Your task to perform on an android device: show emergency info Image 0: 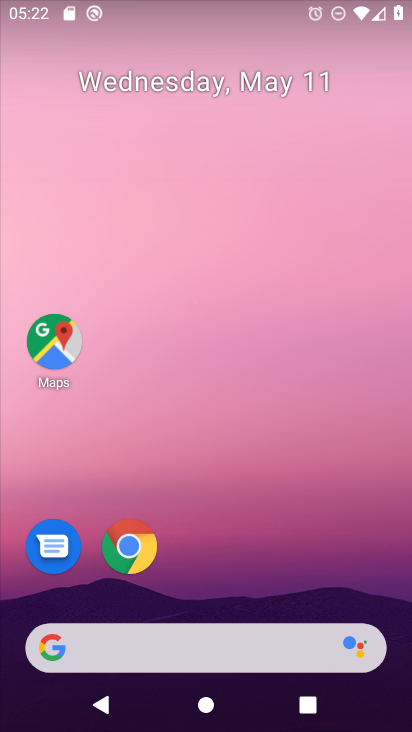
Step 0: drag from (338, 627) to (373, 36)
Your task to perform on an android device: show emergency info Image 1: 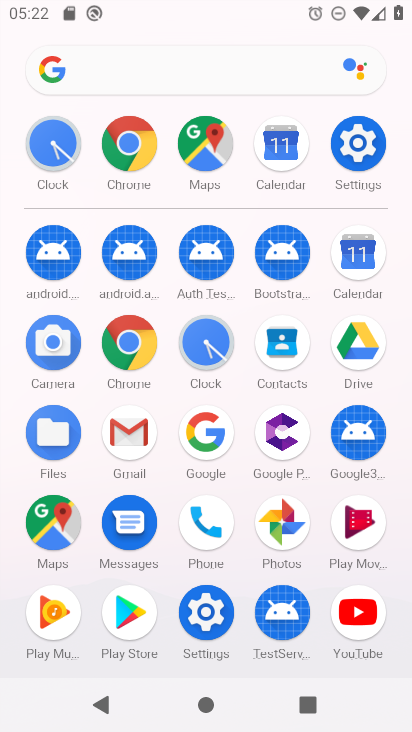
Step 1: click (218, 622)
Your task to perform on an android device: show emergency info Image 2: 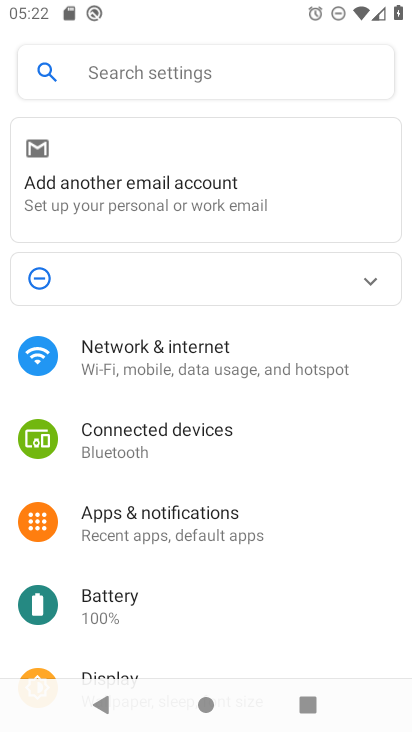
Step 2: drag from (237, 619) to (238, 84)
Your task to perform on an android device: show emergency info Image 3: 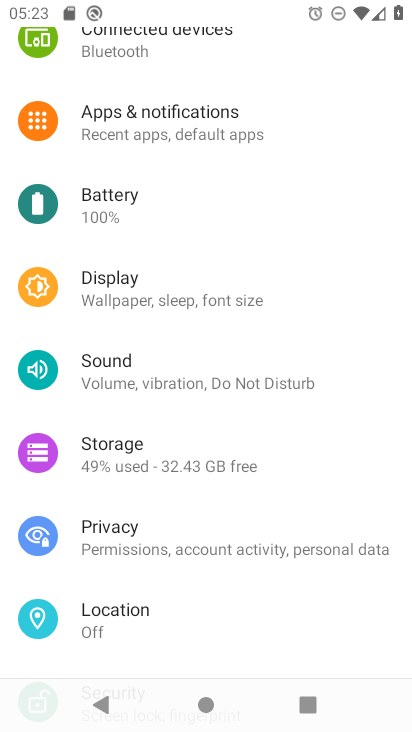
Step 3: drag from (146, 614) to (225, 65)
Your task to perform on an android device: show emergency info Image 4: 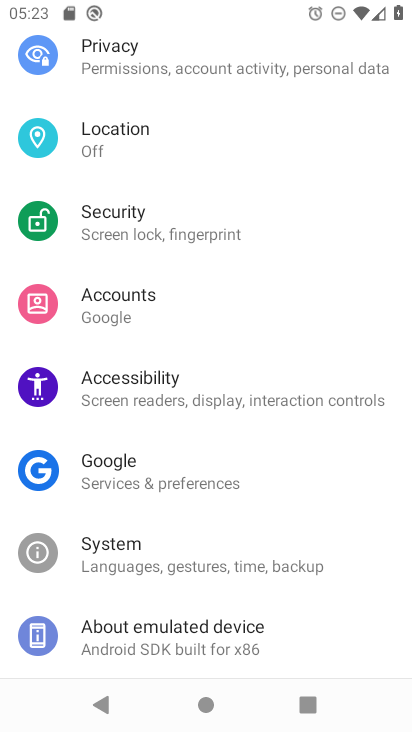
Step 4: drag from (168, 632) to (133, 252)
Your task to perform on an android device: show emergency info Image 5: 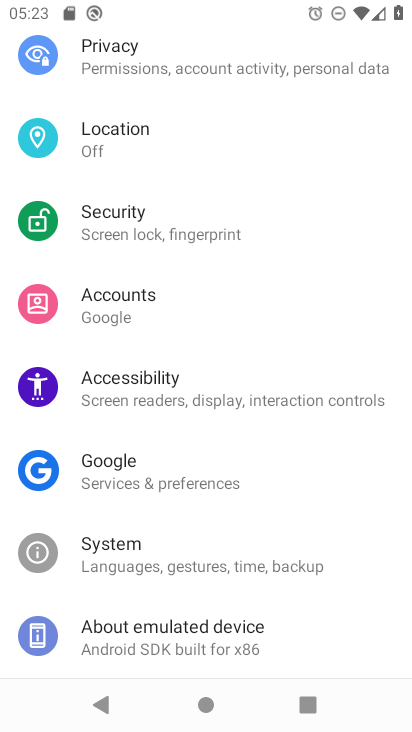
Step 5: click (132, 639)
Your task to perform on an android device: show emergency info Image 6: 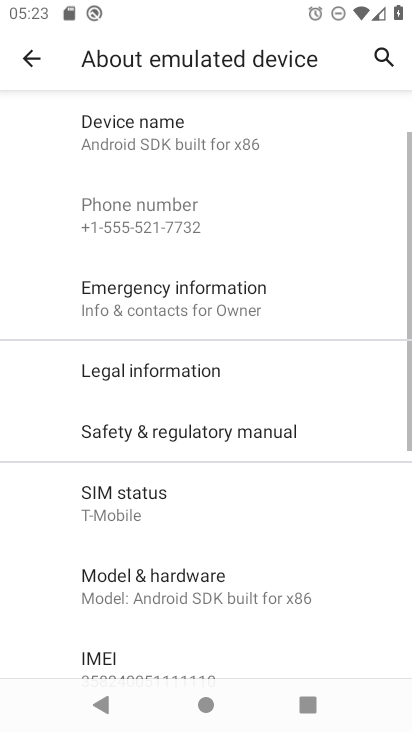
Step 6: click (218, 316)
Your task to perform on an android device: show emergency info Image 7: 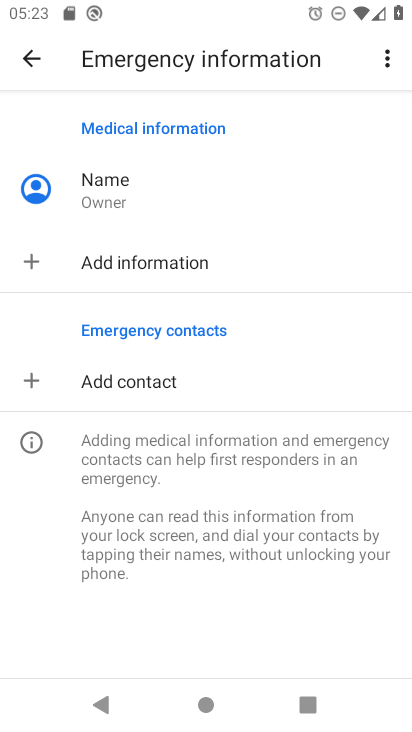
Step 7: task complete